Your task to perform on an android device: turn off notifications settings in the gmail app Image 0: 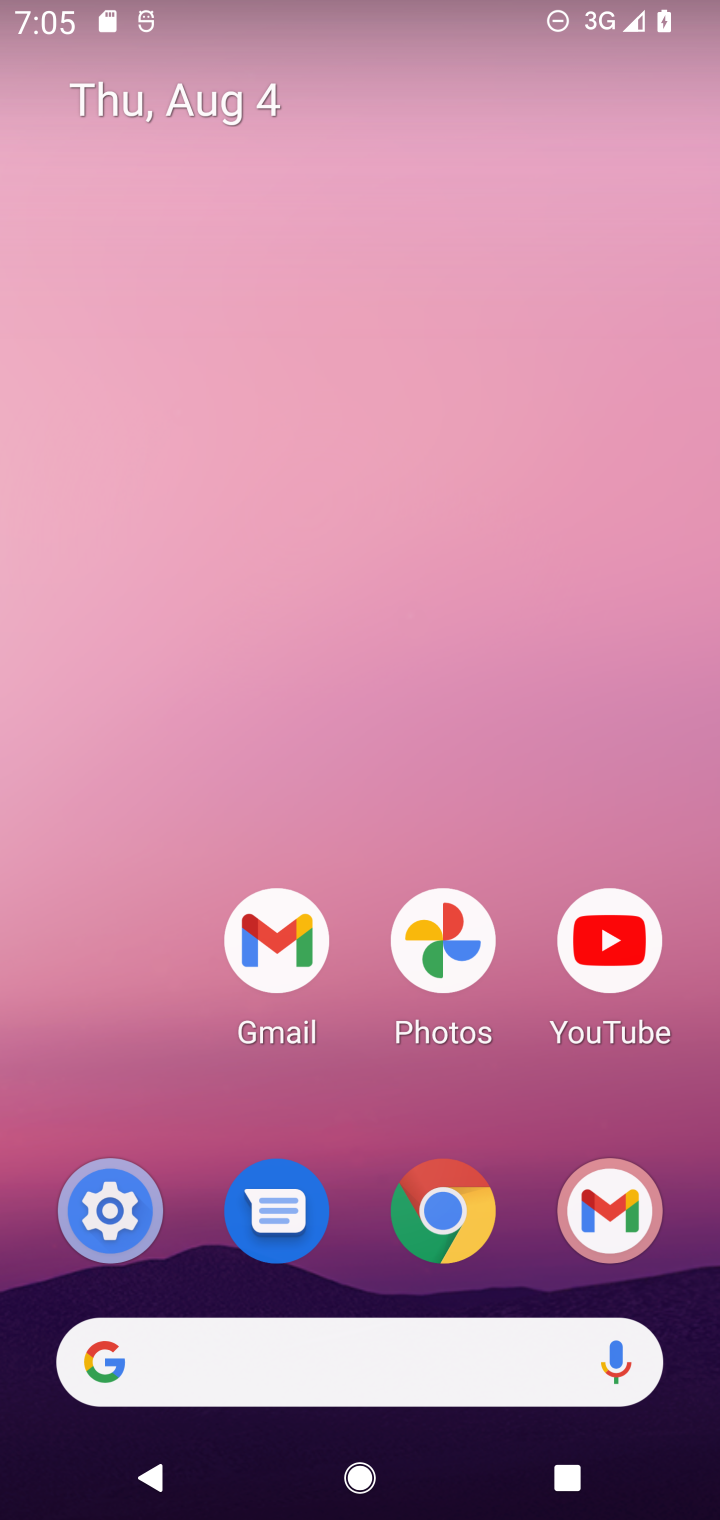
Step 0: press home button
Your task to perform on an android device: turn off notifications settings in the gmail app Image 1: 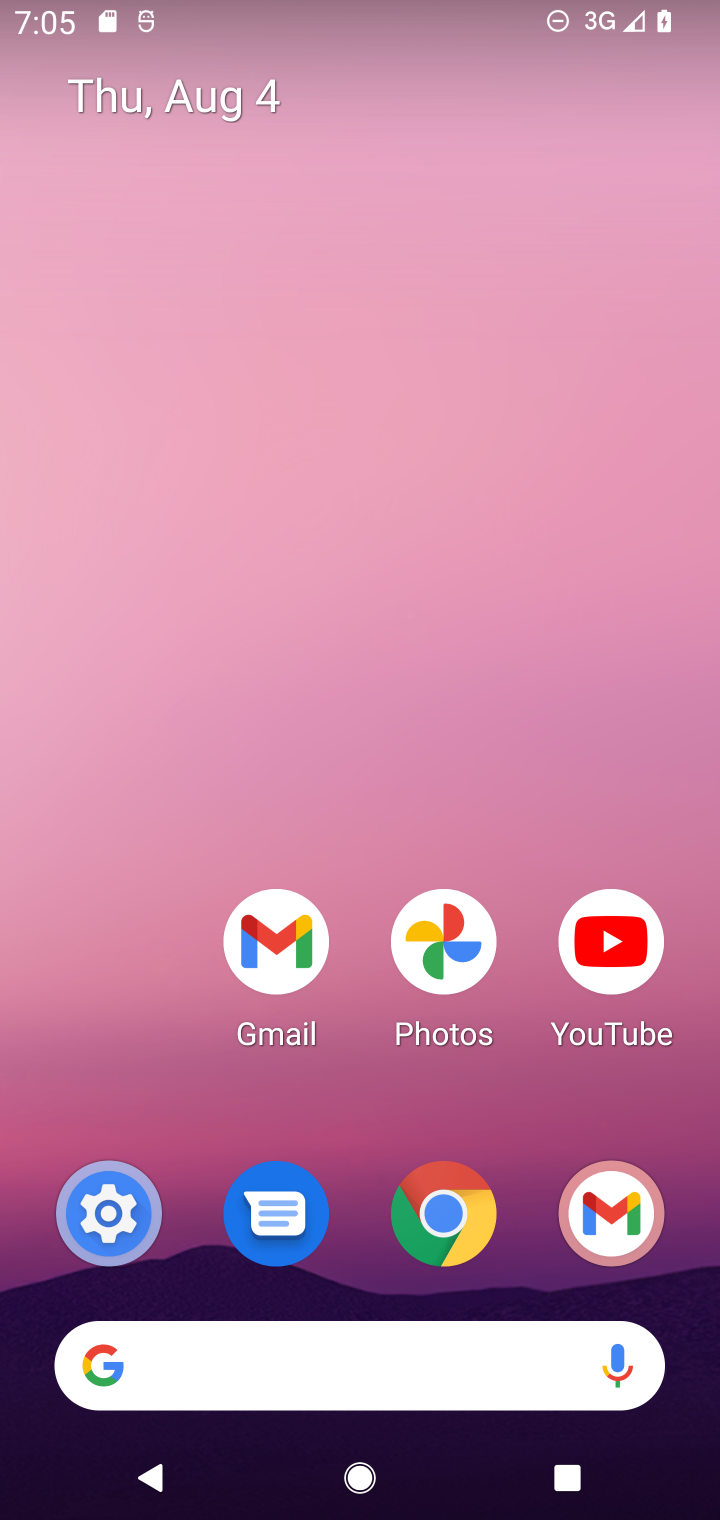
Step 1: drag from (154, 1056) to (112, 191)
Your task to perform on an android device: turn off notifications settings in the gmail app Image 2: 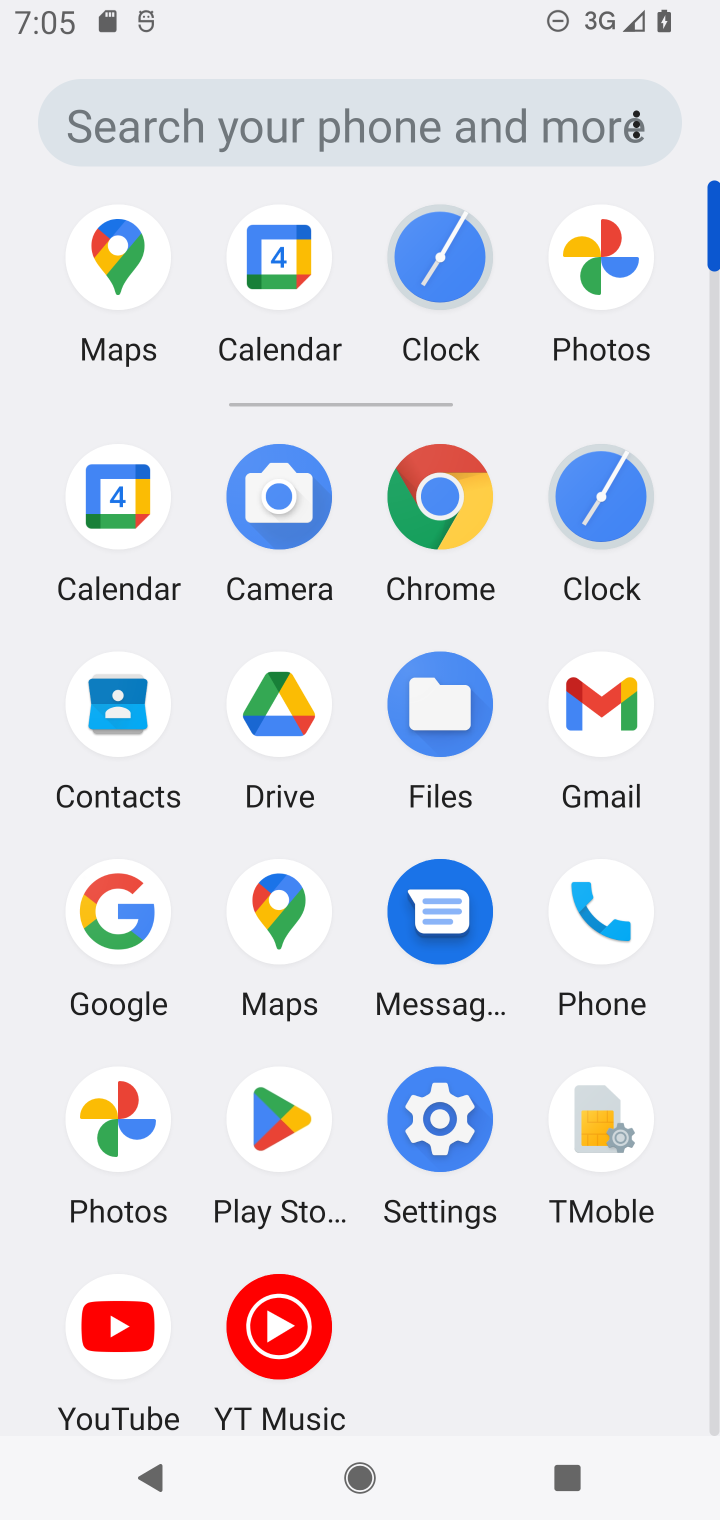
Step 2: click (605, 697)
Your task to perform on an android device: turn off notifications settings in the gmail app Image 3: 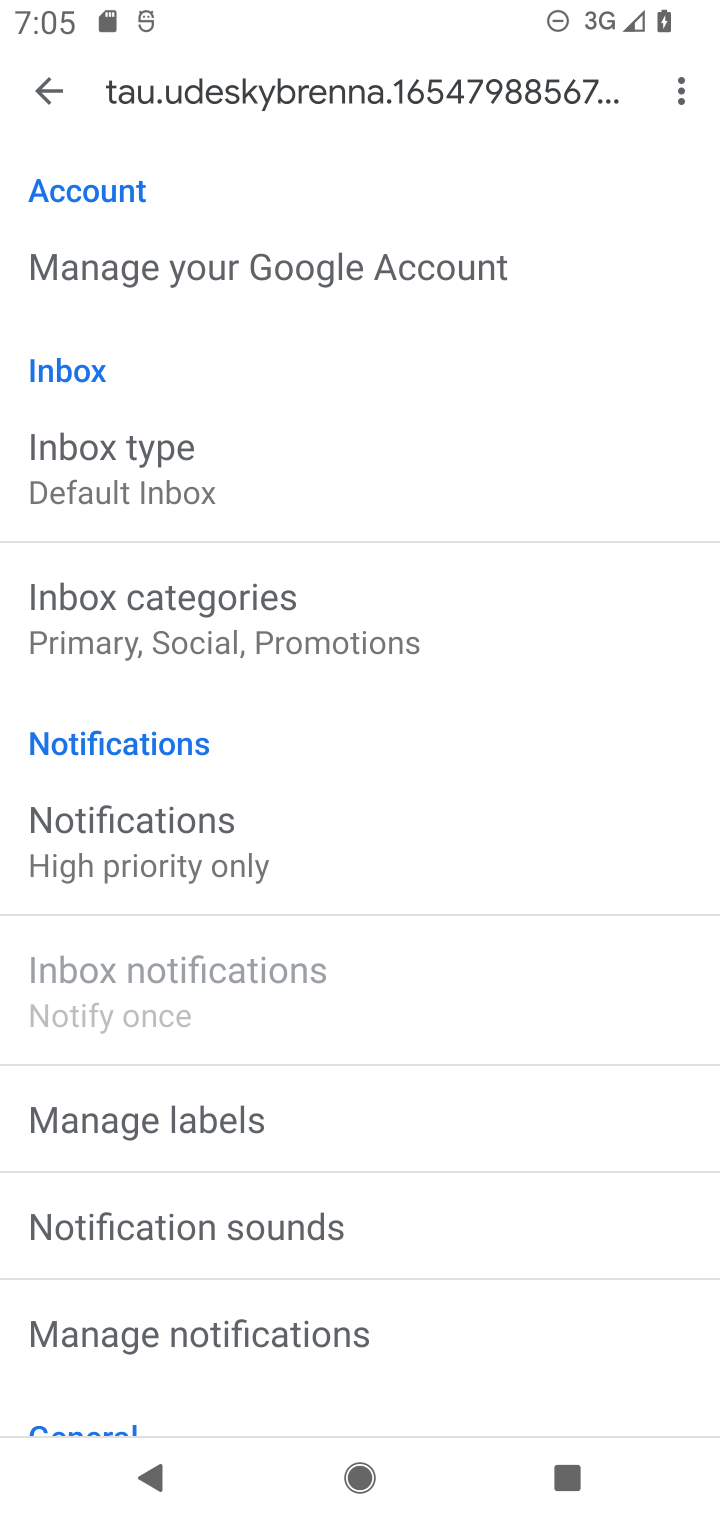
Step 3: drag from (550, 1053) to (594, 812)
Your task to perform on an android device: turn off notifications settings in the gmail app Image 4: 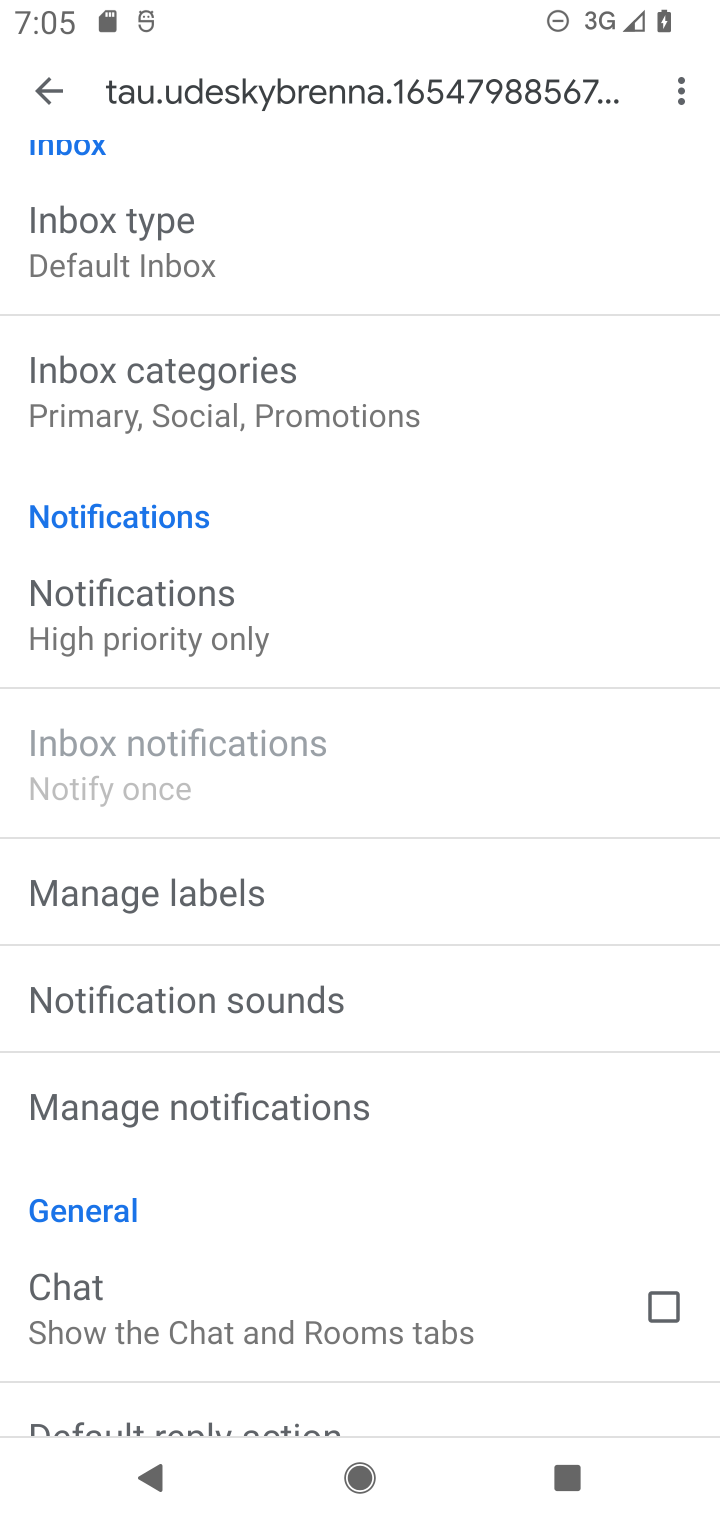
Step 4: drag from (503, 1184) to (538, 892)
Your task to perform on an android device: turn off notifications settings in the gmail app Image 5: 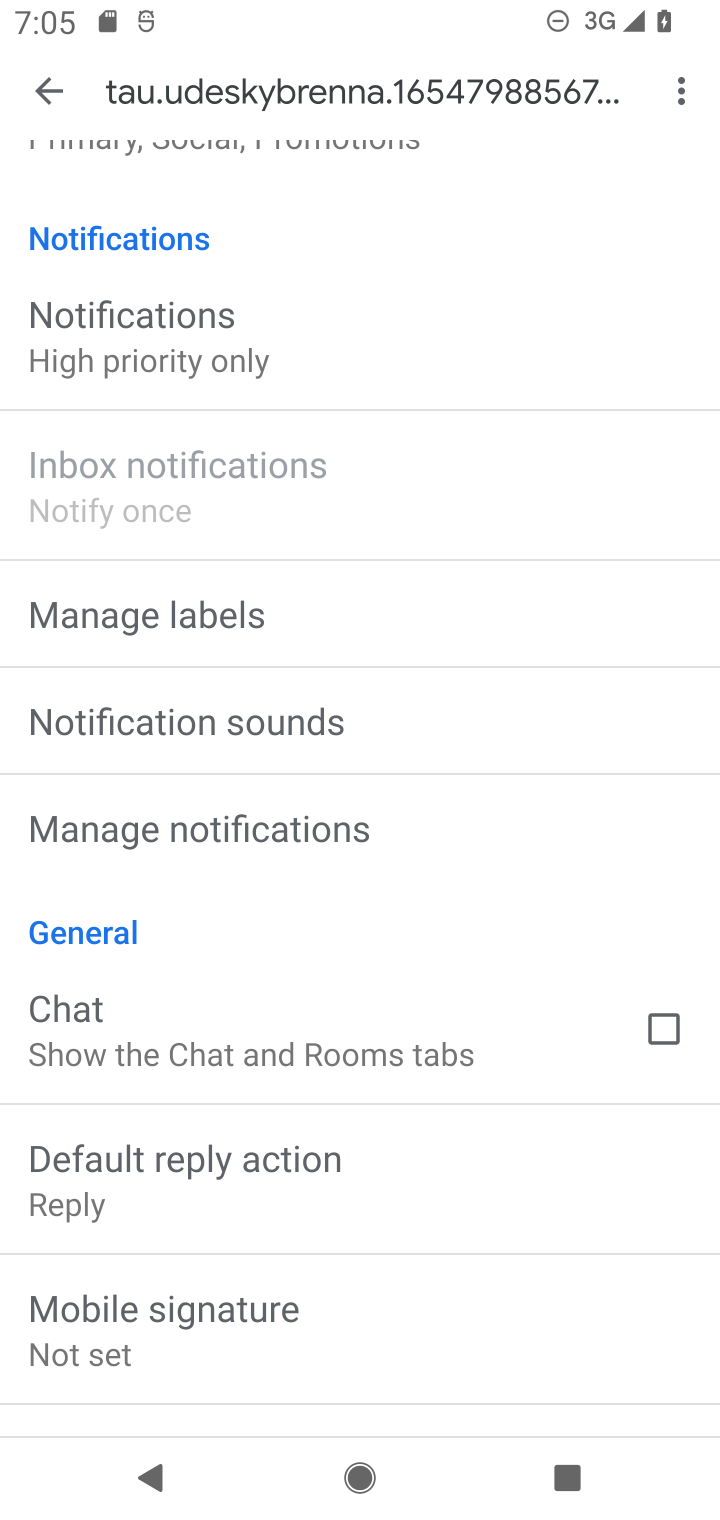
Step 5: drag from (558, 1298) to (513, 801)
Your task to perform on an android device: turn off notifications settings in the gmail app Image 6: 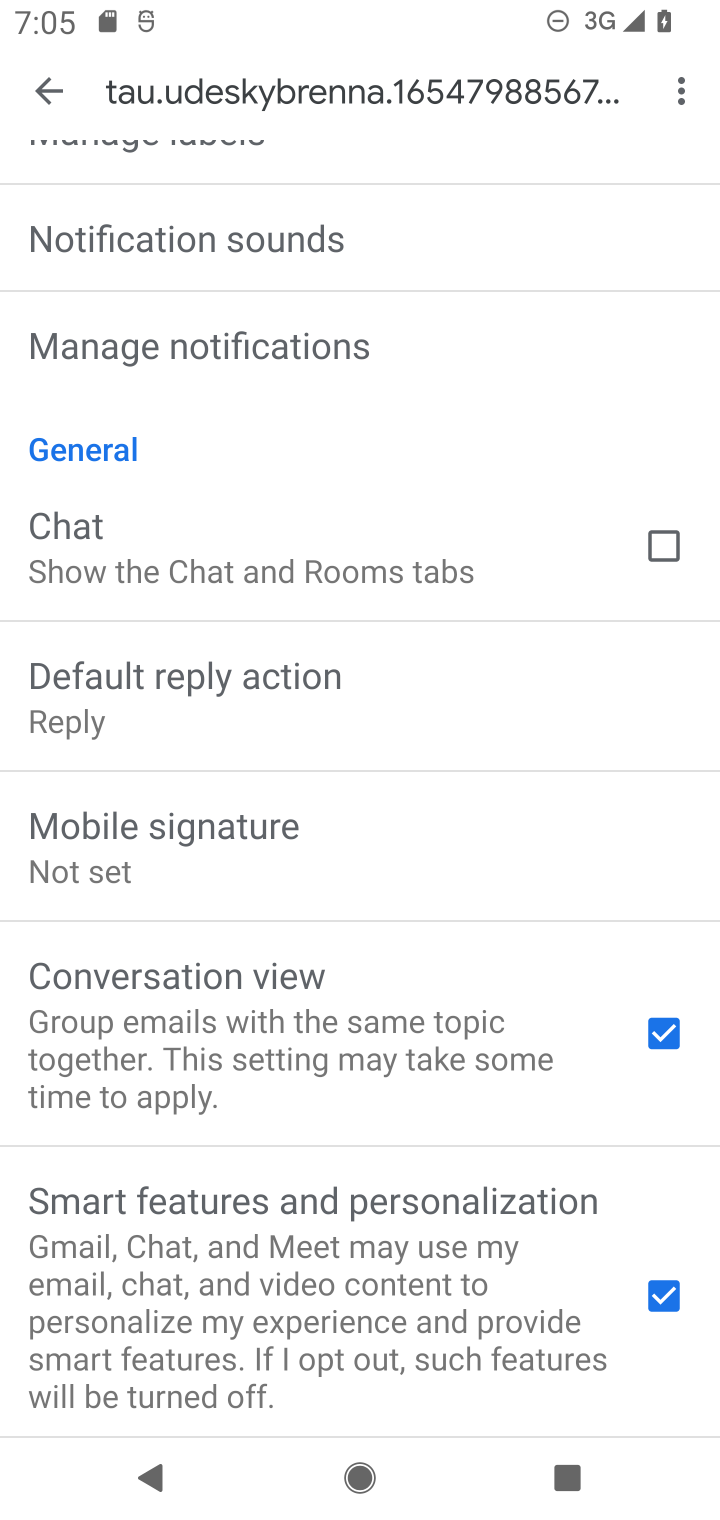
Step 6: drag from (587, 449) to (576, 728)
Your task to perform on an android device: turn off notifications settings in the gmail app Image 7: 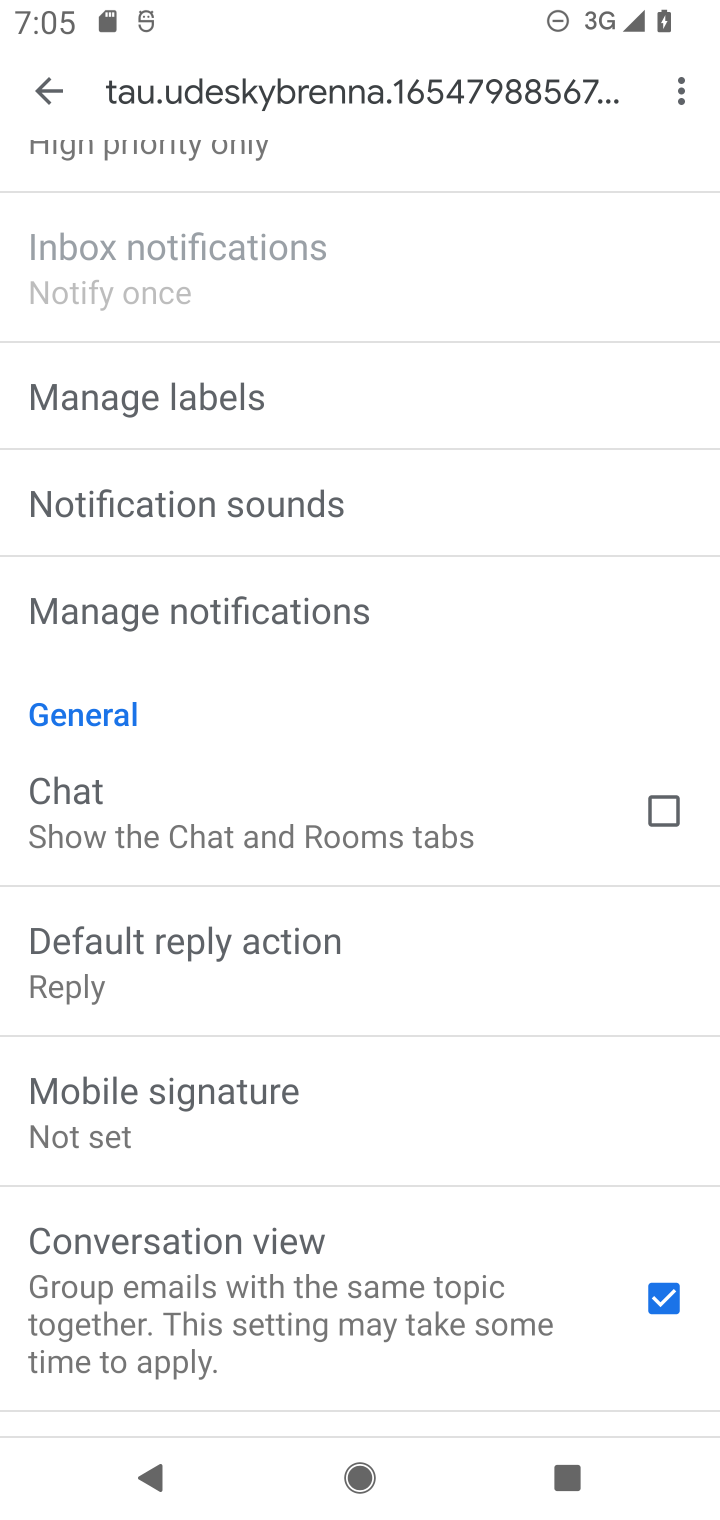
Step 7: drag from (554, 442) to (537, 823)
Your task to perform on an android device: turn off notifications settings in the gmail app Image 8: 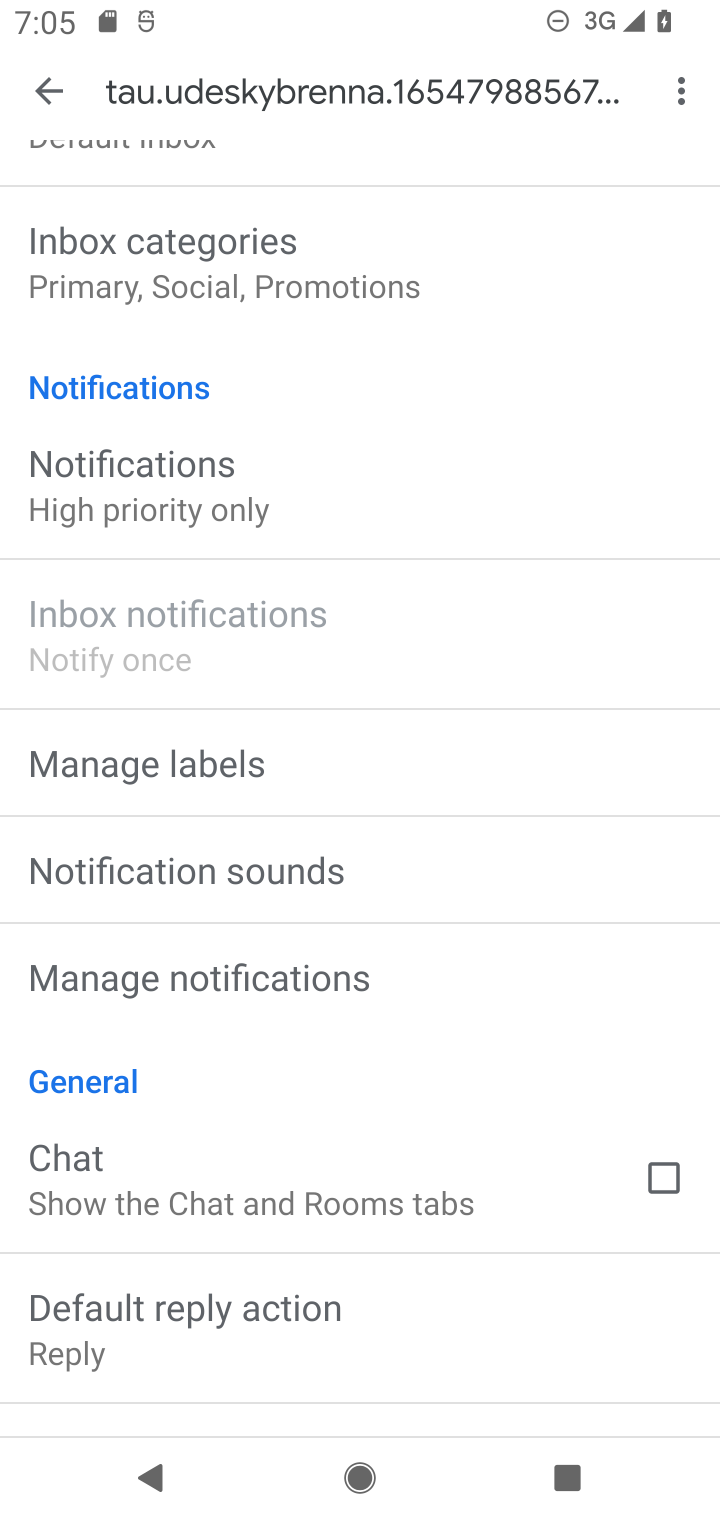
Step 8: click (473, 985)
Your task to perform on an android device: turn off notifications settings in the gmail app Image 9: 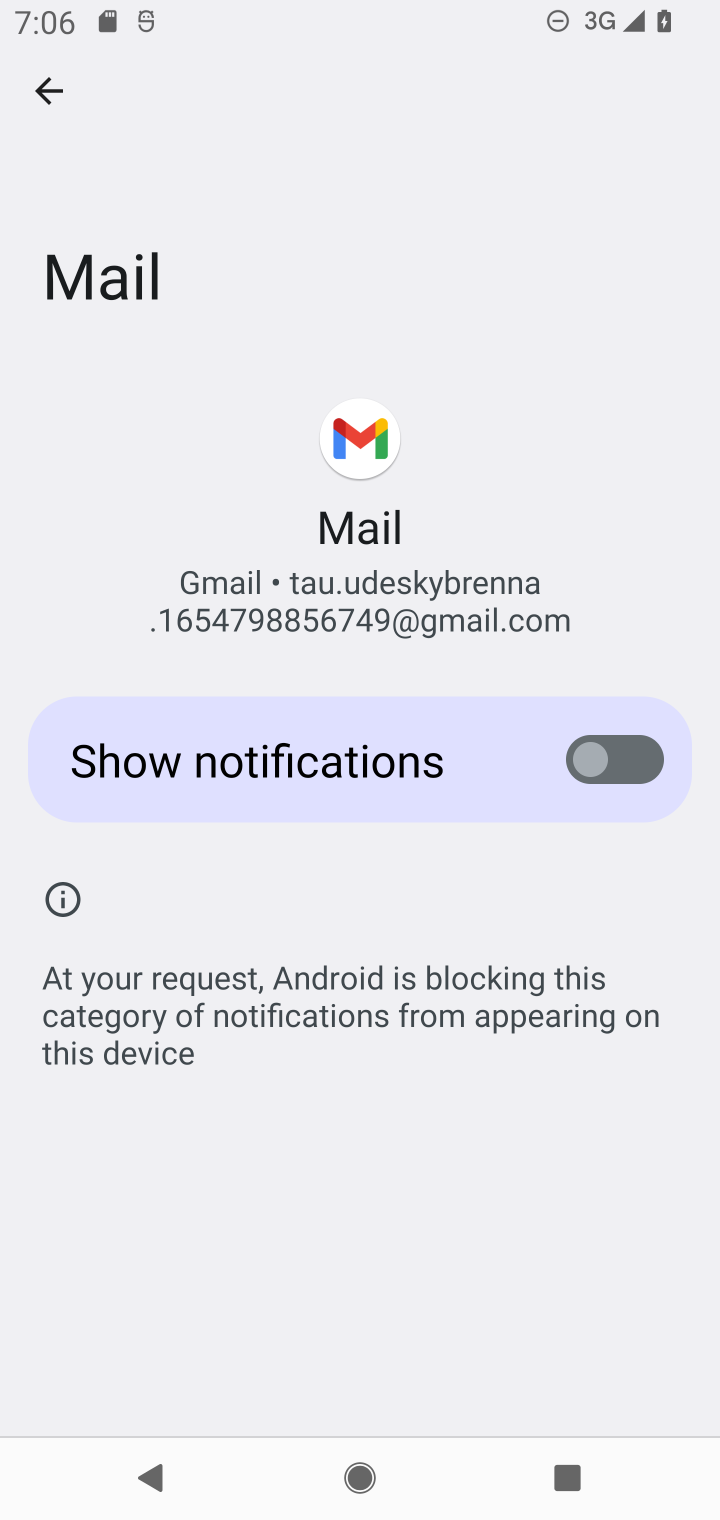
Step 9: task complete